Your task to perform on an android device: Go to notification settings Image 0: 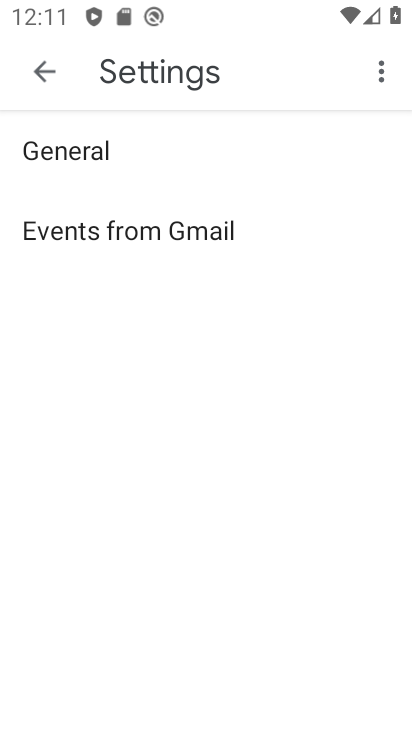
Step 0: click (345, 576)
Your task to perform on an android device: Go to notification settings Image 1: 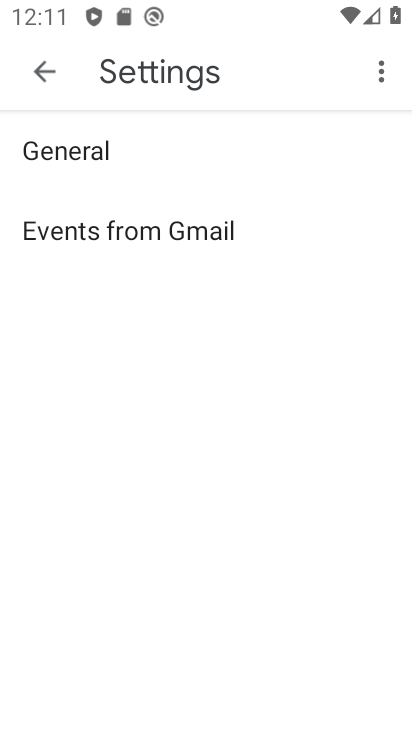
Step 1: click (357, 545)
Your task to perform on an android device: Go to notification settings Image 2: 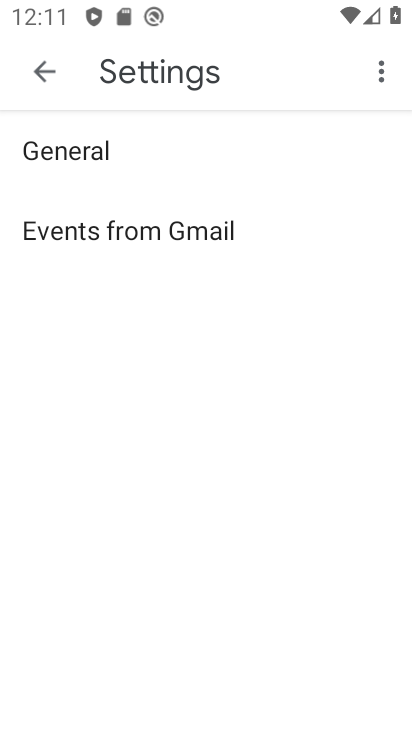
Step 2: press home button
Your task to perform on an android device: Go to notification settings Image 3: 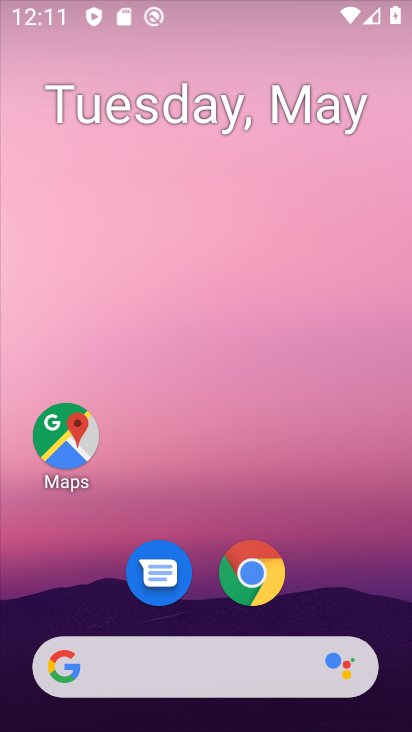
Step 3: drag from (311, 571) to (319, 13)
Your task to perform on an android device: Go to notification settings Image 4: 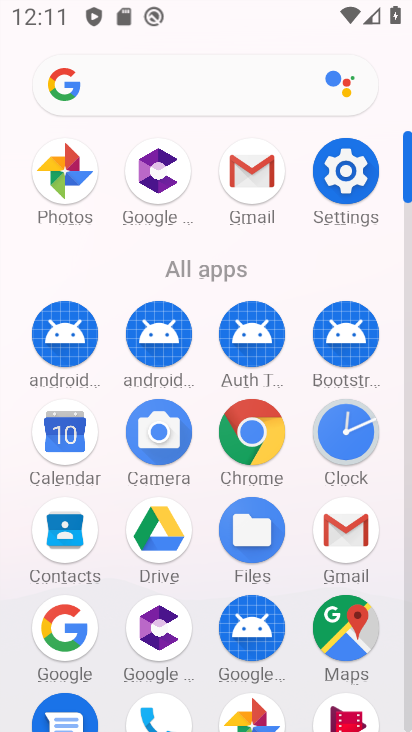
Step 4: click (352, 162)
Your task to perform on an android device: Go to notification settings Image 5: 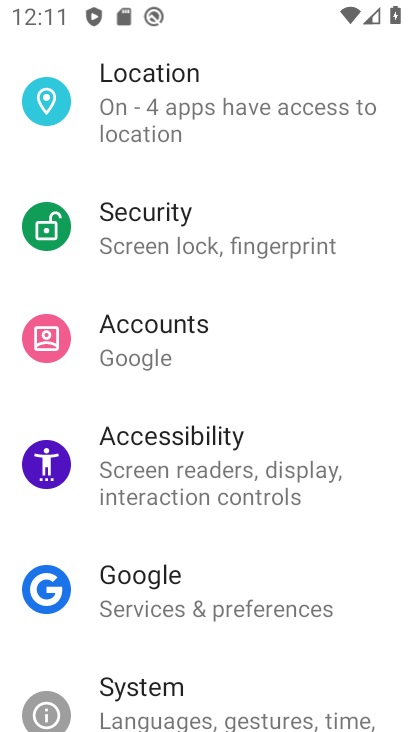
Step 5: drag from (303, 182) to (293, 579)
Your task to perform on an android device: Go to notification settings Image 6: 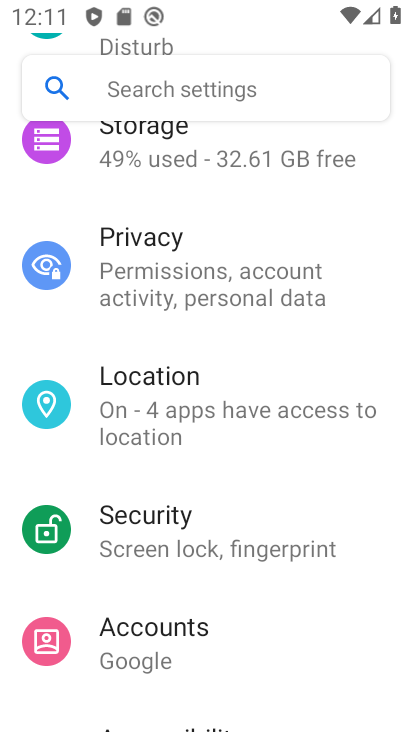
Step 6: drag from (360, 230) to (318, 618)
Your task to perform on an android device: Go to notification settings Image 7: 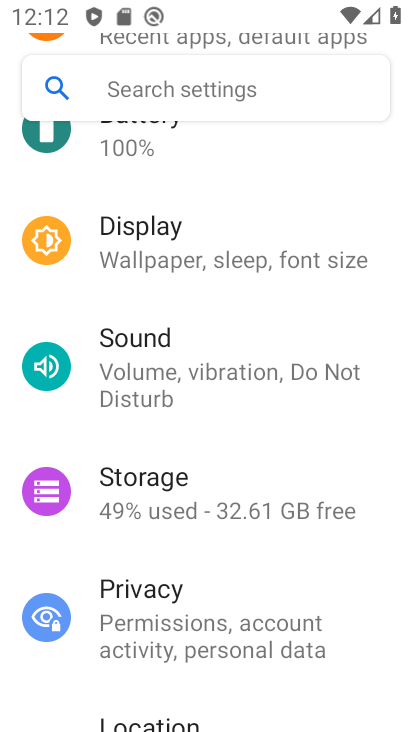
Step 7: drag from (121, 176) to (156, 538)
Your task to perform on an android device: Go to notification settings Image 8: 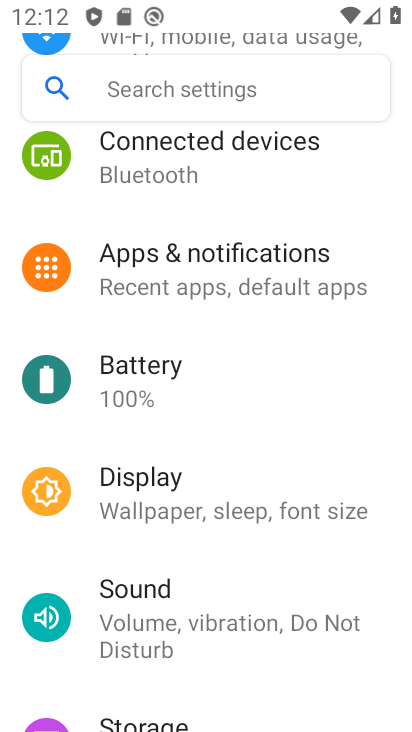
Step 8: drag from (294, 216) to (270, 548)
Your task to perform on an android device: Go to notification settings Image 9: 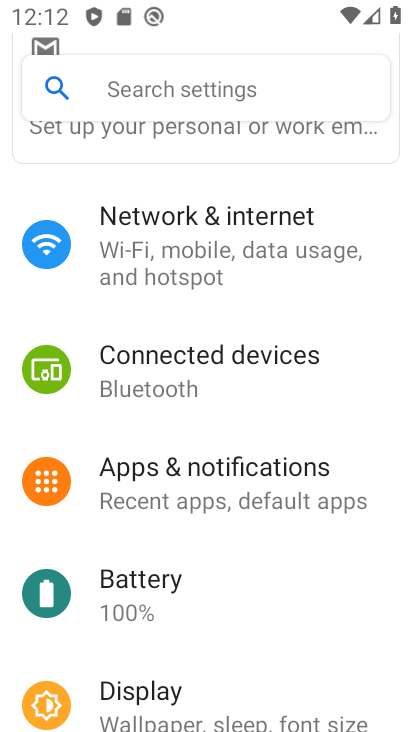
Step 9: click (276, 490)
Your task to perform on an android device: Go to notification settings Image 10: 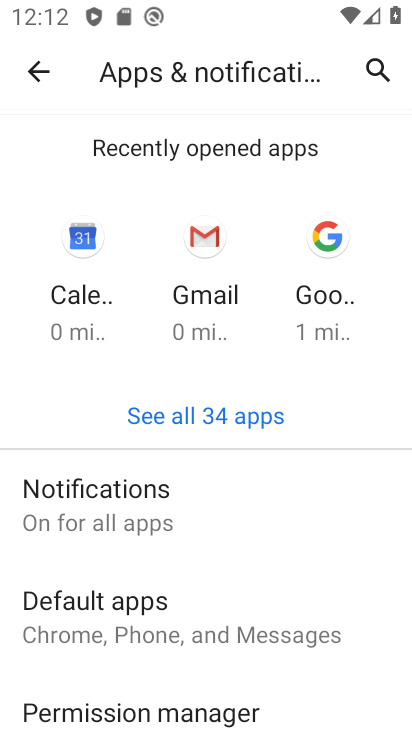
Step 10: click (130, 500)
Your task to perform on an android device: Go to notification settings Image 11: 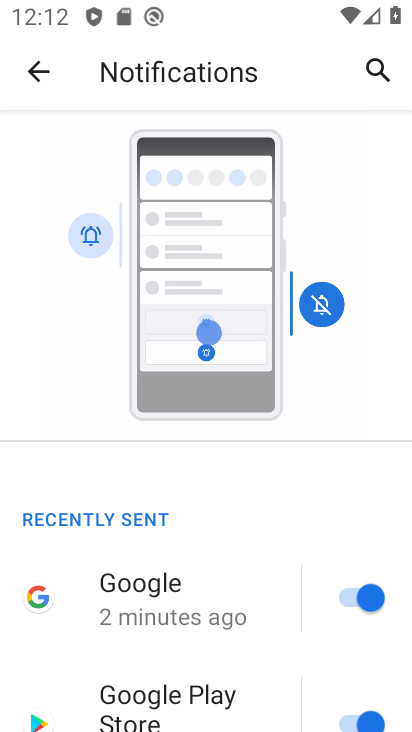
Step 11: task complete